Your task to perform on an android device: turn off location history Image 0: 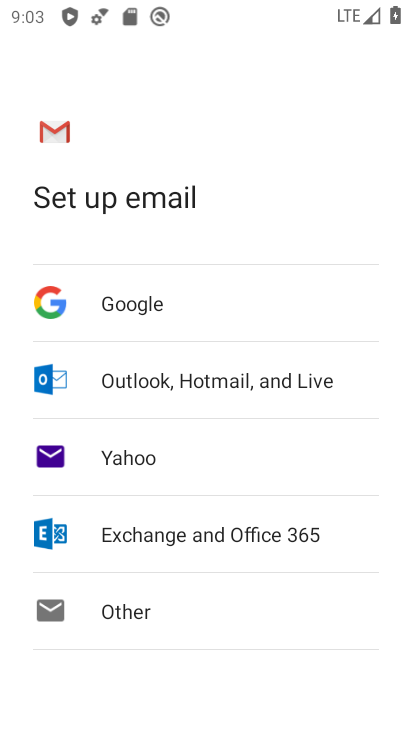
Step 0: press home button
Your task to perform on an android device: turn off location history Image 1: 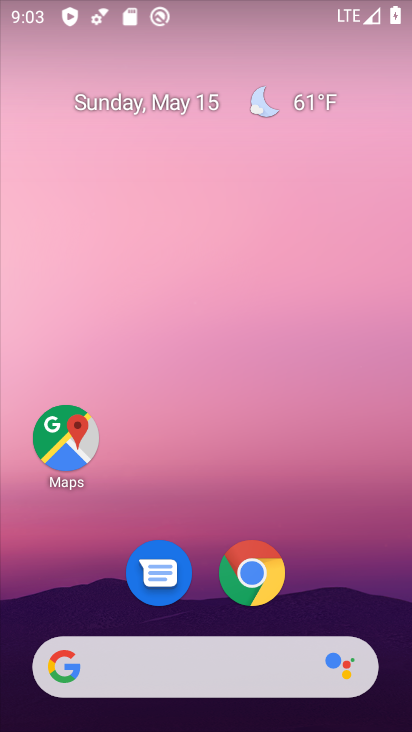
Step 1: drag from (18, 580) to (229, 207)
Your task to perform on an android device: turn off location history Image 2: 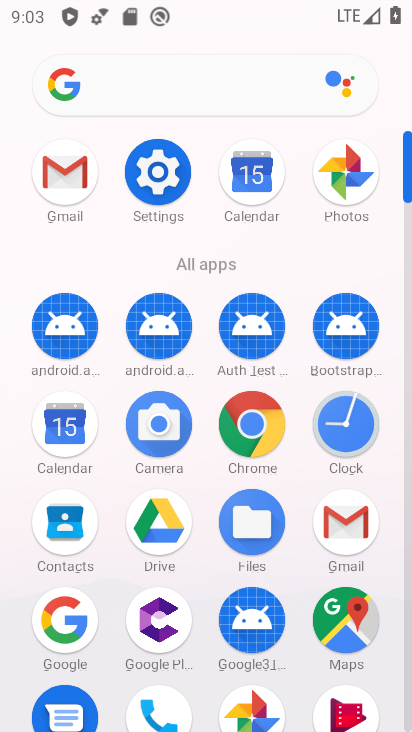
Step 2: click (164, 176)
Your task to perform on an android device: turn off location history Image 3: 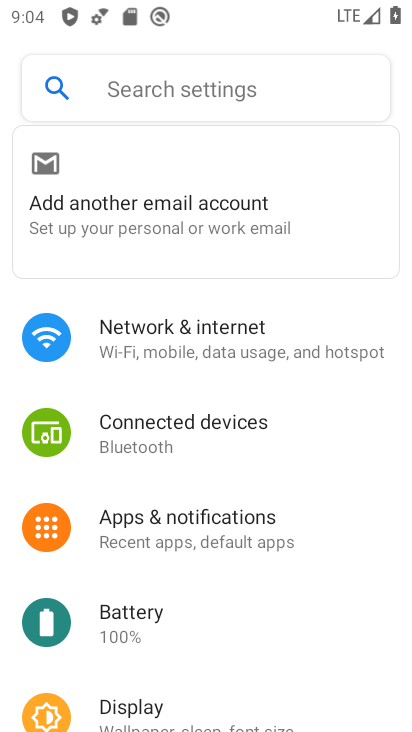
Step 3: drag from (72, 691) to (355, 193)
Your task to perform on an android device: turn off location history Image 4: 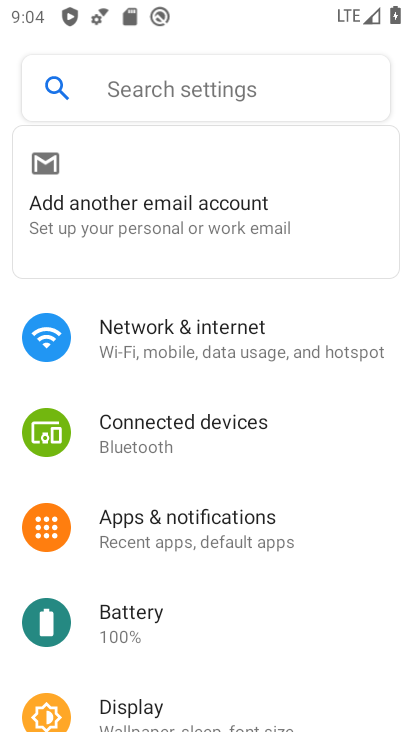
Step 4: drag from (45, 657) to (307, 277)
Your task to perform on an android device: turn off location history Image 5: 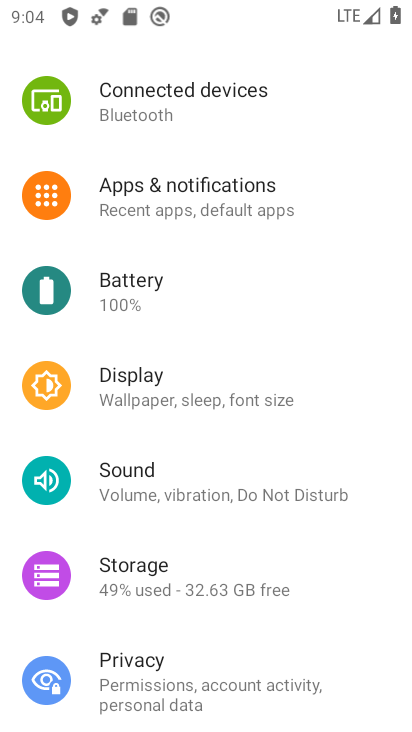
Step 5: drag from (34, 562) to (239, 198)
Your task to perform on an android device: turn off location history Image 6: 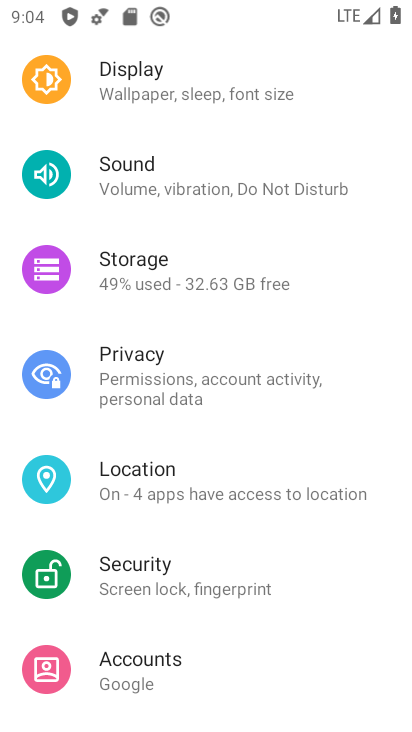
Step 6: click (129, 466)
Your task to perform on an android device: turn off location history Image 7: 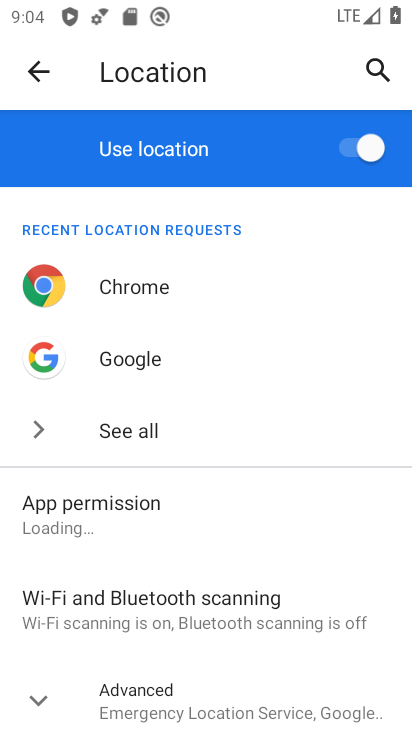
Step 7: click (366, 146)
Your task to perform on an android device: turn off location history Image 8: 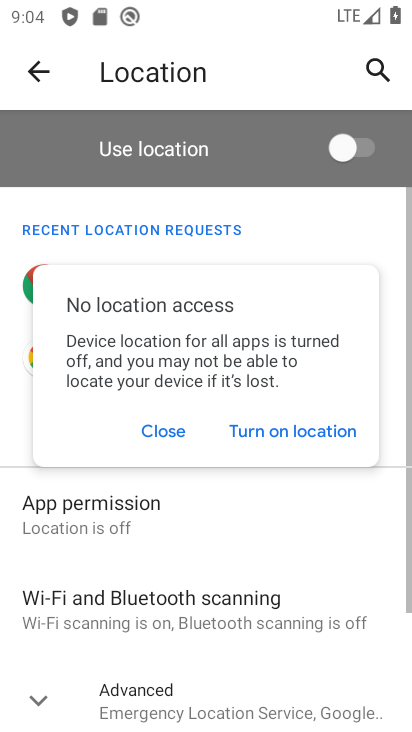
Step 8: task complete